Your task to perform on an android device: Open notification settings Image 0: 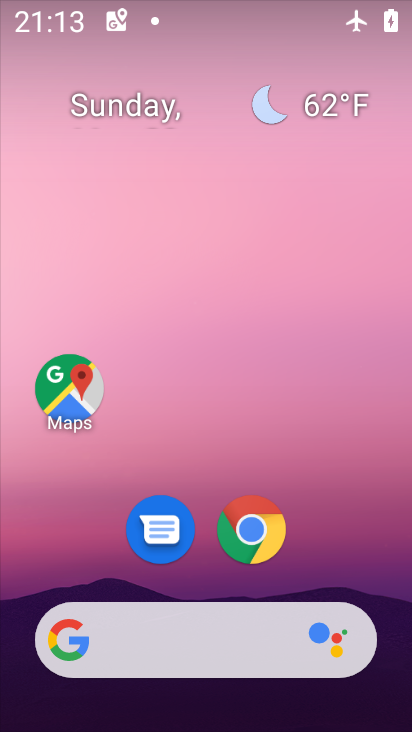
Step 0: drag from (261, 630) to (182, 151)
Your task to perform on an android device: Open notification settings Image 1: 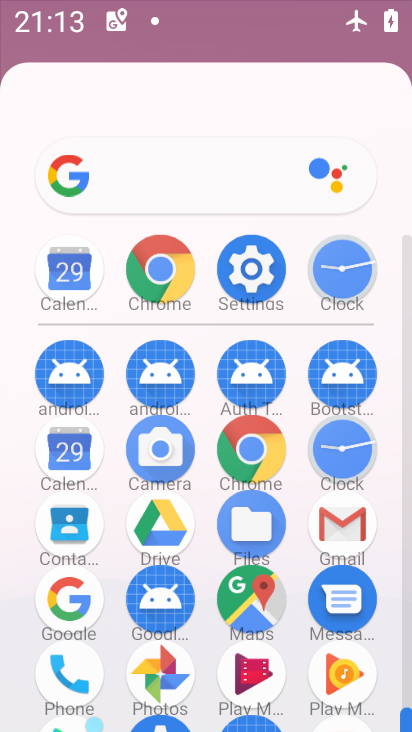
Step 1: click (189, 48)
Your task to perform on an android device: Open notification settings Image 2: 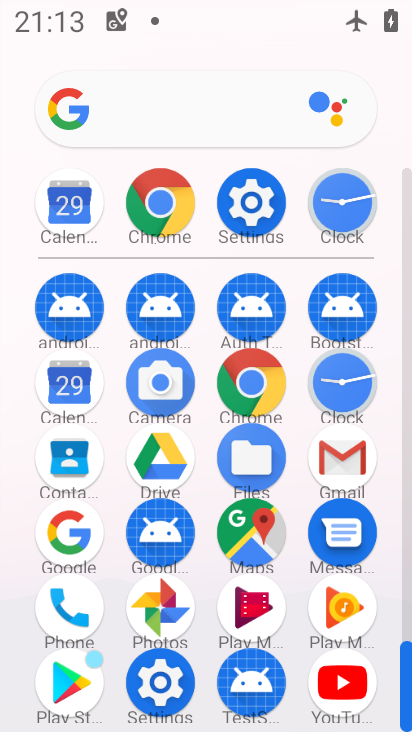
Step 2: drag from (211, 542) to (147, 160)
Your task to perform on an android device: Open notification settings Image 3: 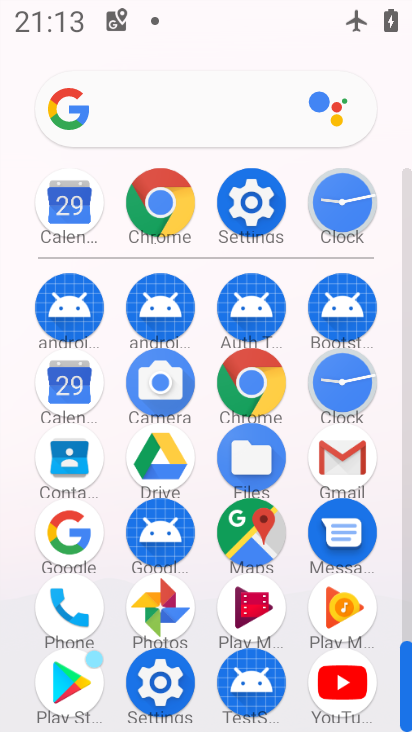
Step 3: click (240, 191)
Your task to perform on an android device: Open notification settings Image 4: 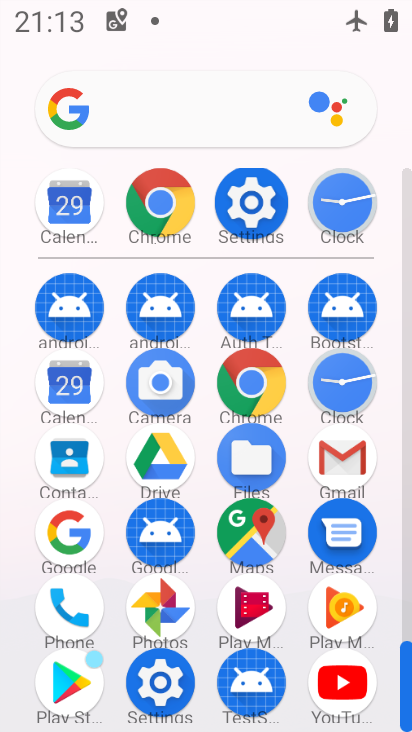
Step 4: click (240, 191)
Your task to perform on an android device: Open notification settings Image 5: 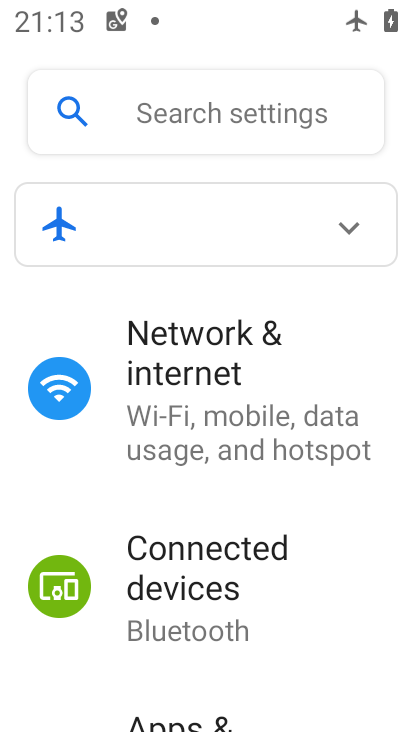
Step 5: click (244, 194)
Your task to perform on an android device: Open notification settings Image 6: 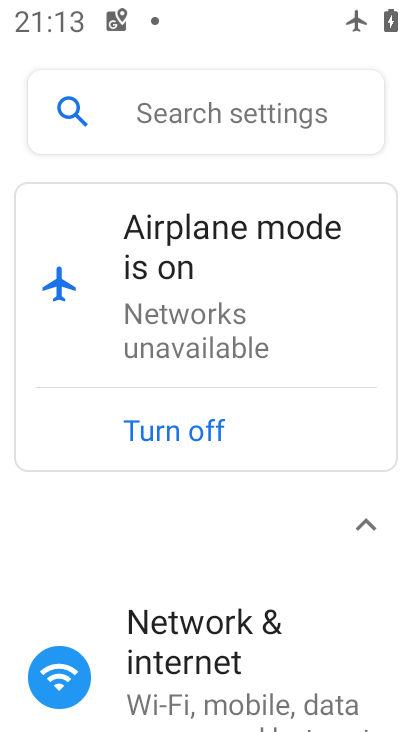
Step 6: click (250, 193)
Your task to perform on an android device: Open notification settings Image 7: 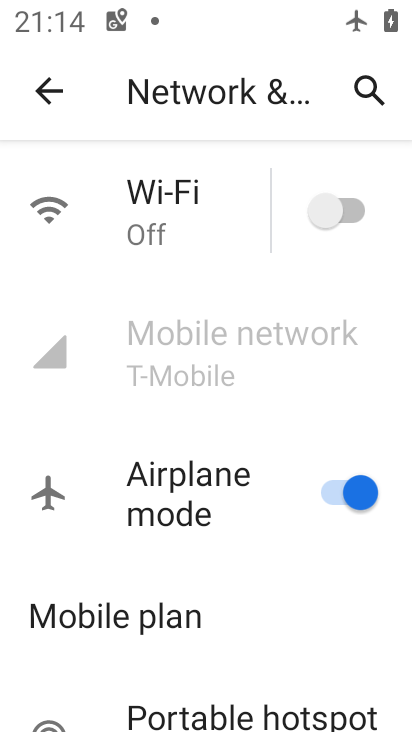
Step 7: task complete